Your task to perform on an android device: move an email to a new category in the gmail app Image 0: 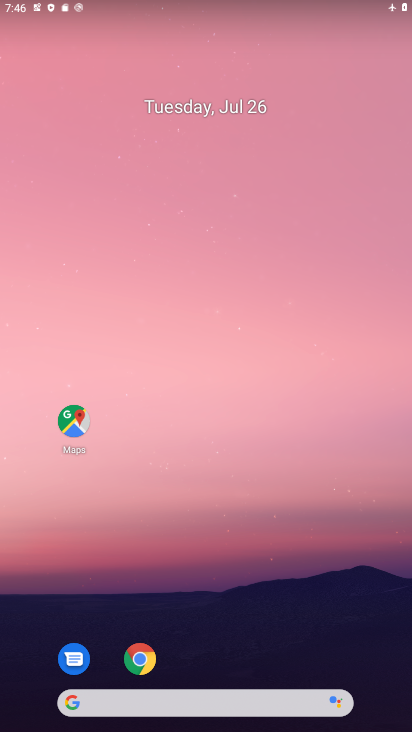
Step 0: drag from (207, 680) to (220, 5)
Your task to perform on an android device: move an email to a new category in the gmail app Image 1: 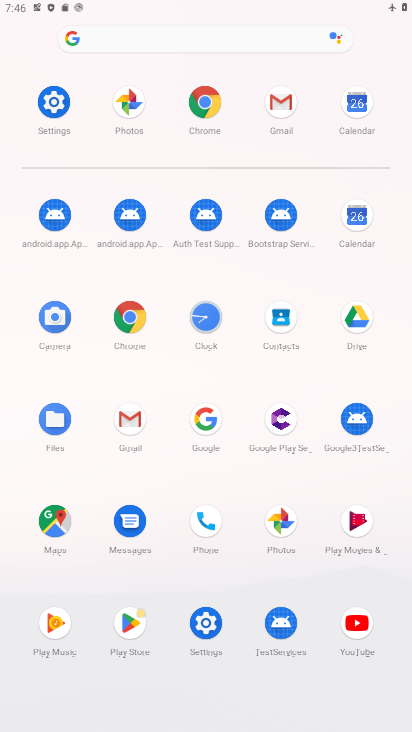
Step 1: click (127, 416)
Your task to perform on an android device: move an email to a new category in the gmail app Image 2: 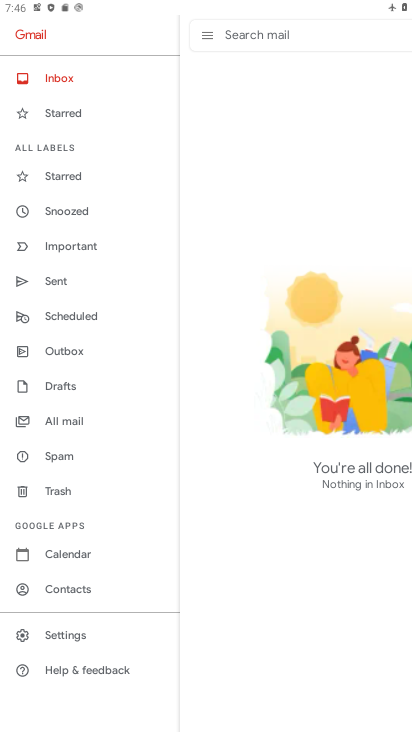
Step 2: click (63, 81)
Your task to perform on an android device: move an email to a new category in the gmail app Image 3: 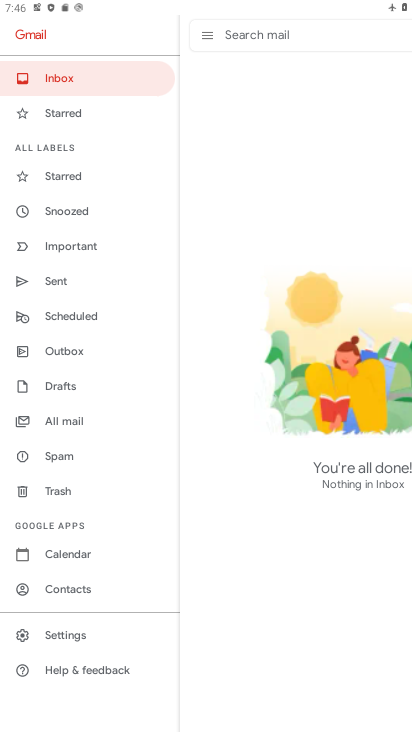
Step 3: task complete